Your task to perform on an android device: set an alarm Image 0: 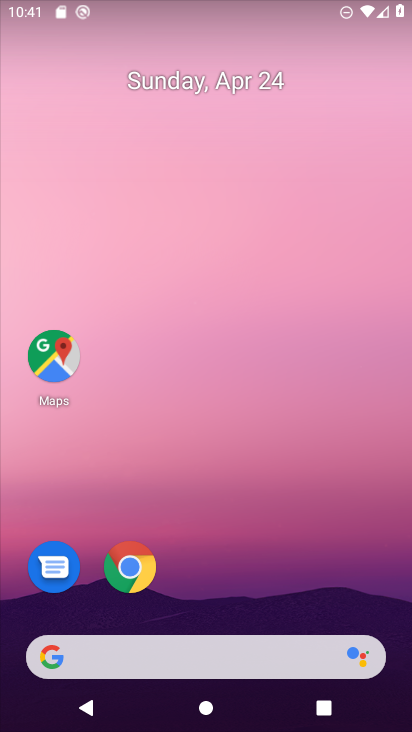
Step 0: drag from (156, 611) to (160, 105)
Your task to perform on an android device: set an alarm Image 1: 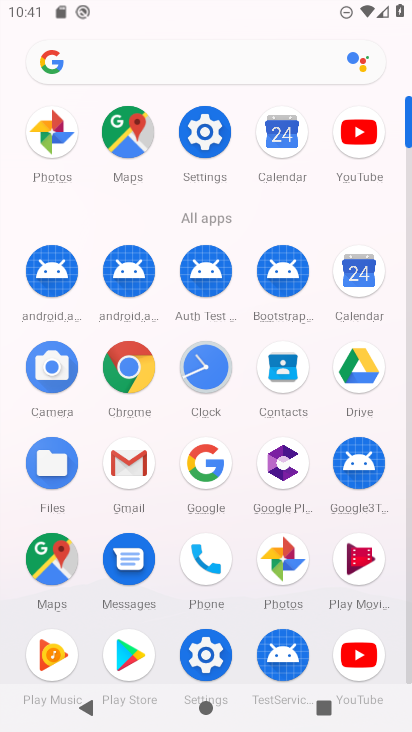
Step 1: click (187, 375)
Your task to perform on an android device: set an alarm Image 2: 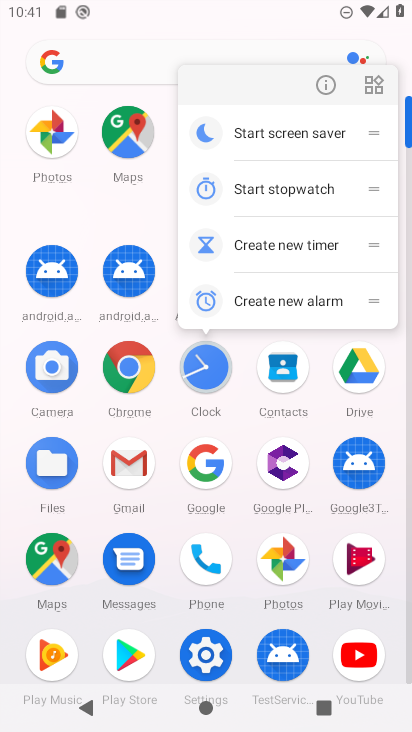
Step 2: click (330, 91)
Your task to perform on an android device: set an alarm Image 3: 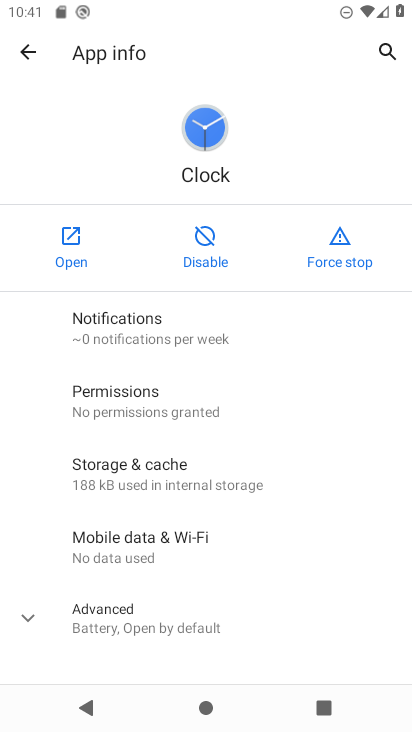
Step 3: click (61, 248)
Your task to perform on an android device: set an alarm Image 4: 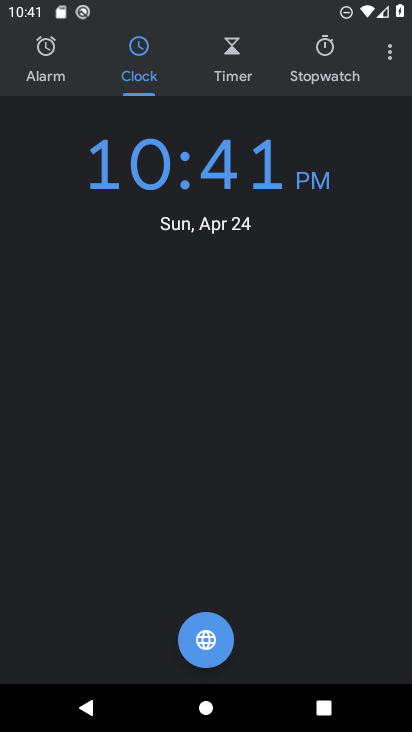
Step 4: click (41, 78)
Your task to perform on an android device: set an alarm Image 5: 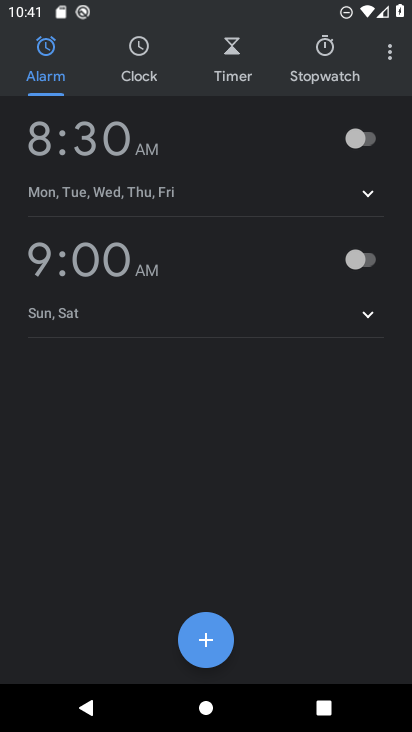
Step 5: click (378, 141)
Your task to perform on an android device: set an alarm Image 6: 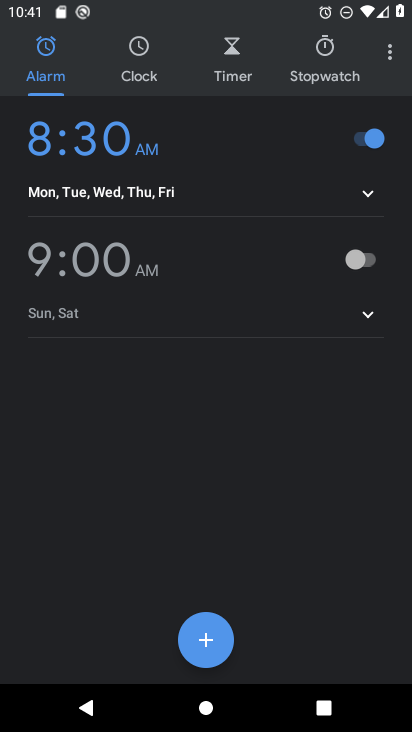
Step 6: task complete